Your task to perform on an android device: turn off location history Image 0: 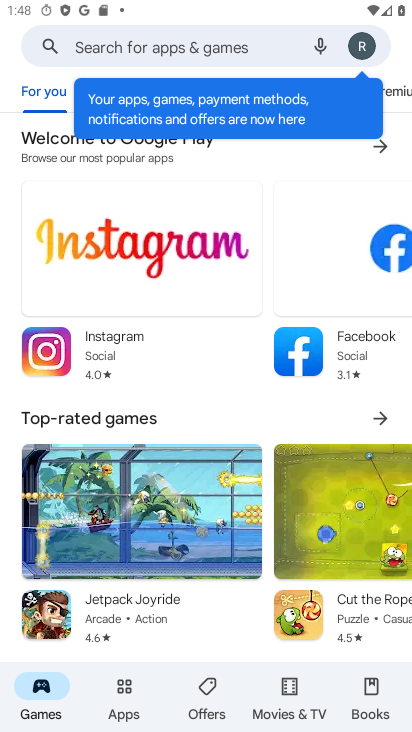
Step 0: press home button
Your task to perform on an android device: turn off location history Image 1: 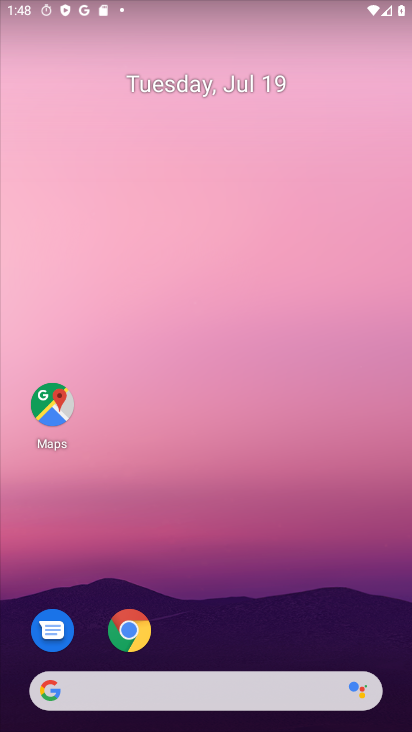
Step 1: drag from (261, 590) to (261, 87)
Your task to perform on an android device: turn off location history Image 2: 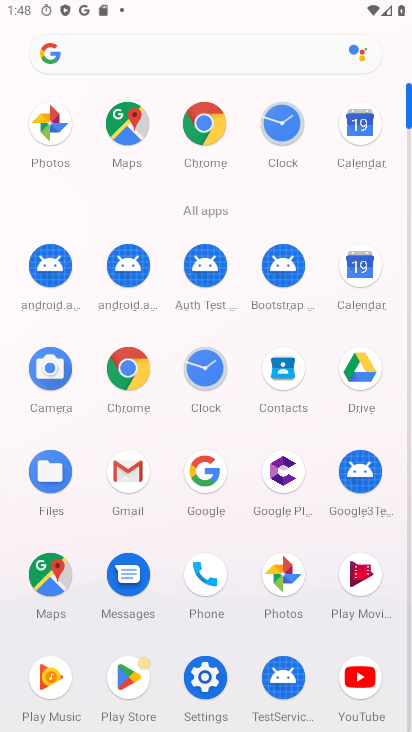
Step 2: click (204, 671)
Your task to perform on an android device: turn off location history Image 3: 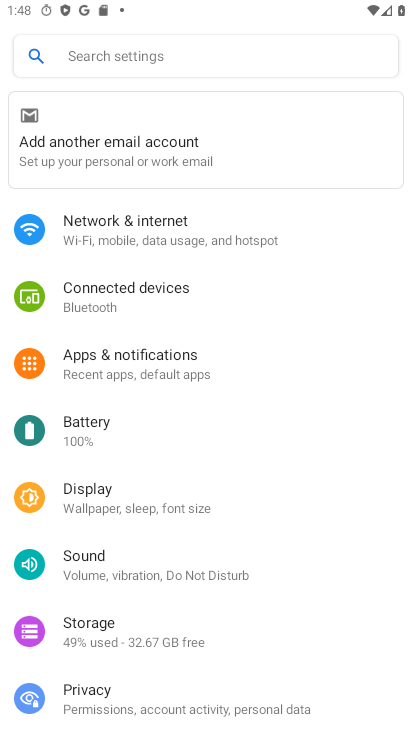
Step 3: drag from (115, 622) to (103, 411)
Your task to perform on an android device: turn off location history Image 4: 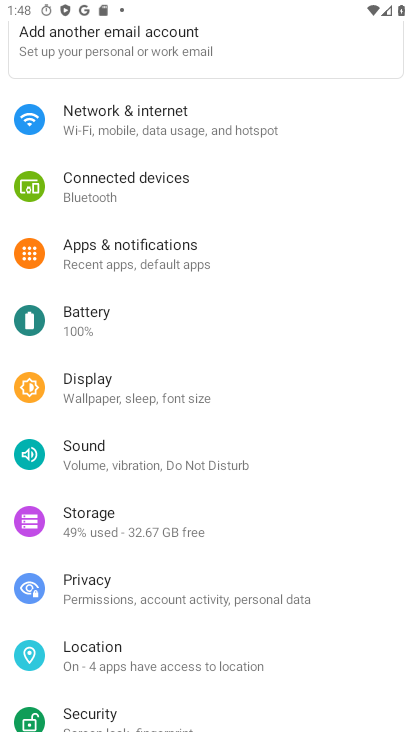
Step 4: click (84, 648)
Your task to perform on an android device: turn off location history Image 5: 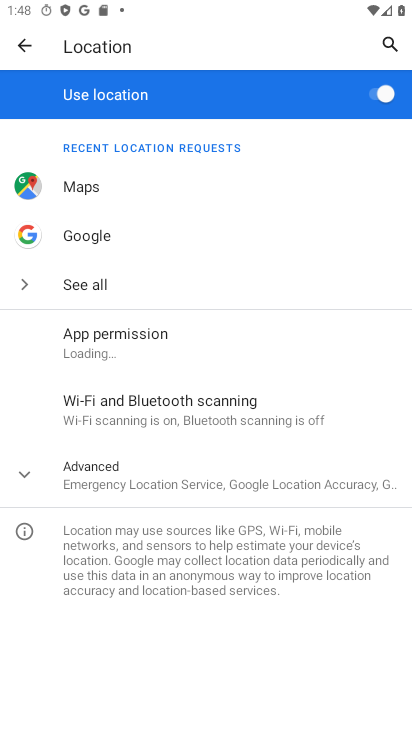
Step 5: click (140, 486)
Your task to perform on an android device: turn off location history Image 6: 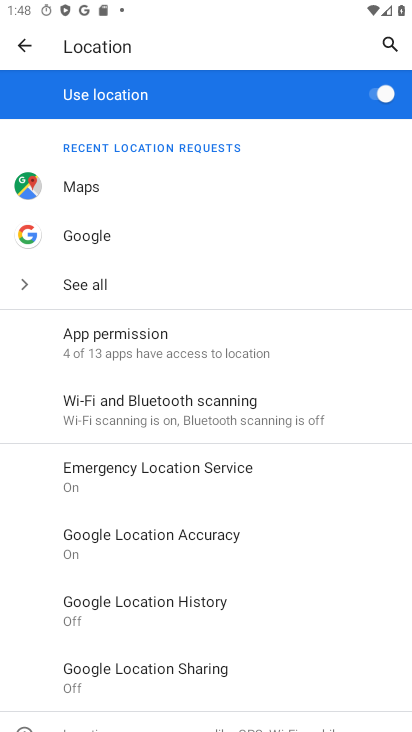
Step 6: click (172, 592)
Your task to perform on an android device: turn off location history Image 7: 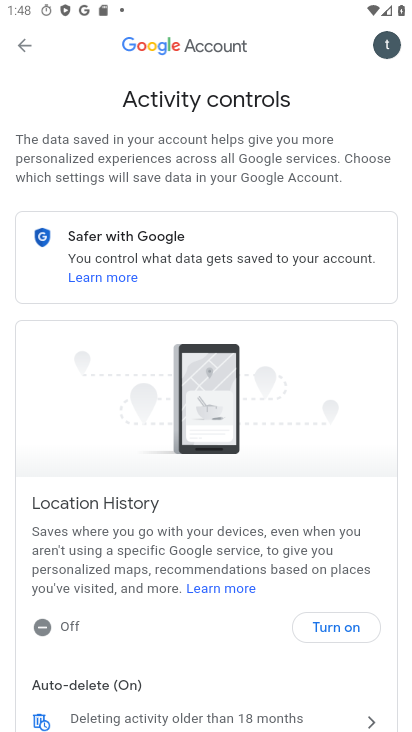
Step 7: task complete